Your task to perform on an android device: Do I have any events today? Image 0: 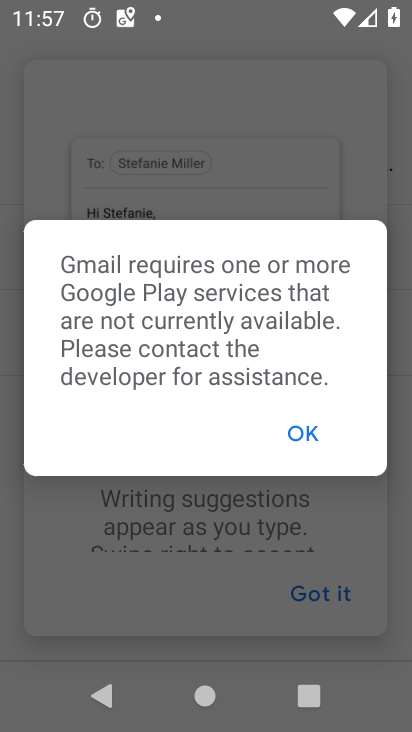
Step 0: press home button
Your task to perform on an android device: Do I have any events today? Image 1: 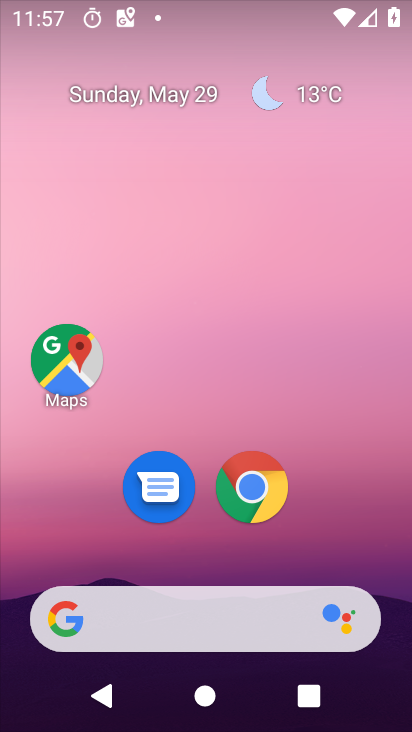
Step 1: drag from (383, 616) to (363, 81)
Your task to perform on an android device: Do I have any events today? Image 2: 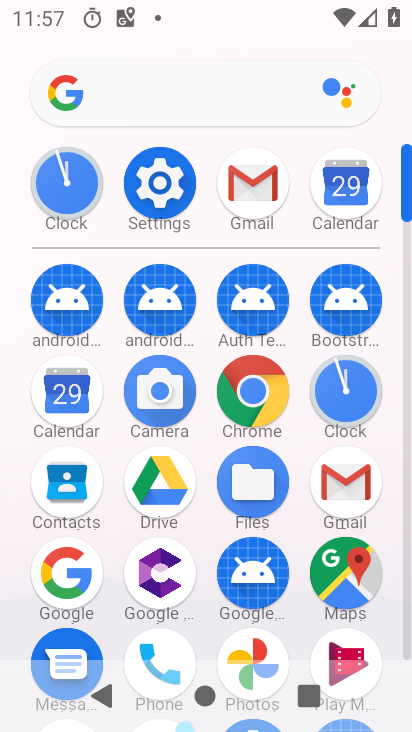
Step 2: click (52, 379)
Your task to perform on an android device: Do I have any events today? Image 3: 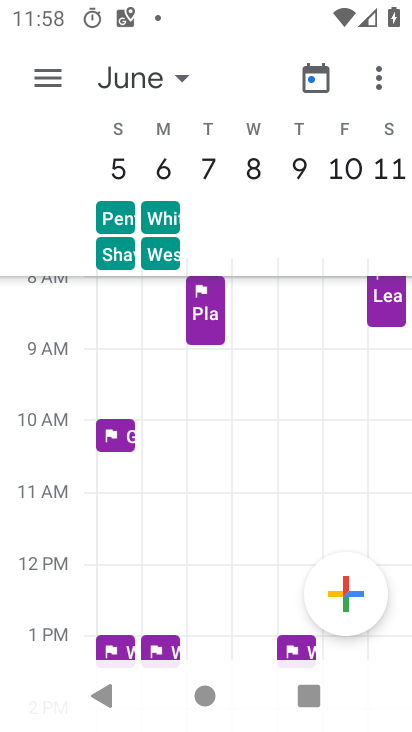
Step 3: click (171, 75)
Your task to perform on an android device: Do I have any events today? Image 4: 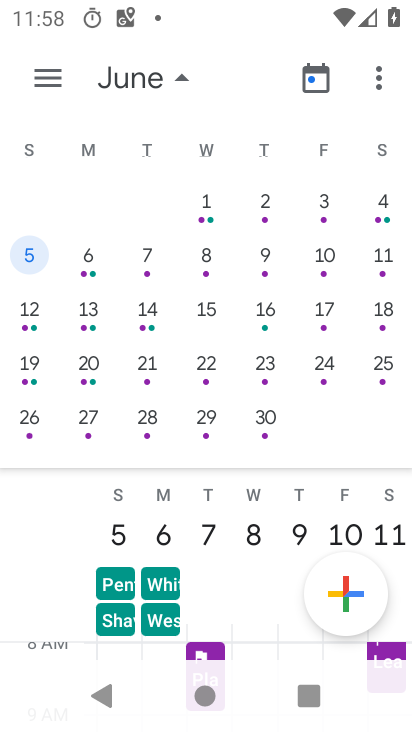
Step 4: drag from (124, 181) to (365, 211)
Your task to perform on an android device: Do I have any events today? Image 5: 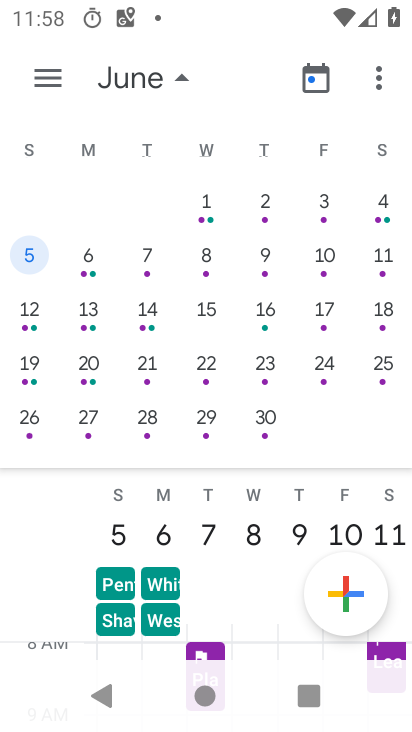
Step 5: drag from (112, 189) to (374, 200)
Your task to perform on an android device: Do I have any events today? Image 6: 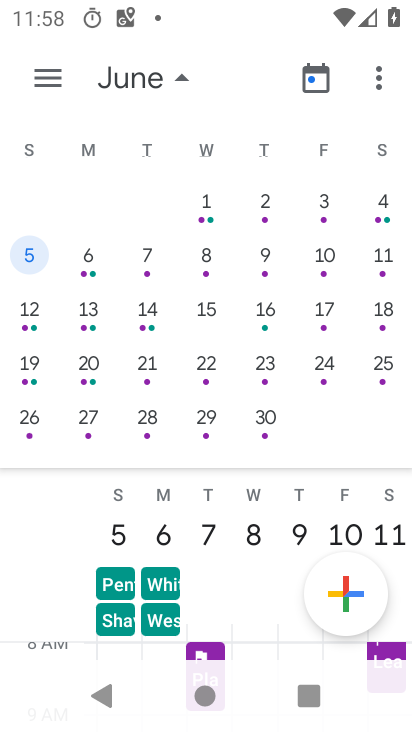
Step 6: drag from (73, 187) to (408, 201)
Your task to perform on an android device: Do I have any events today? Image 7: 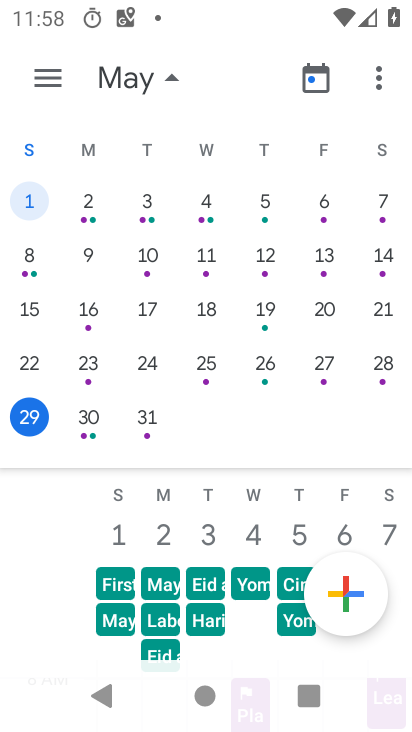
Step 7: click (21, 416)
Your task to perform on an android device: Do I have any events today? Image 8: 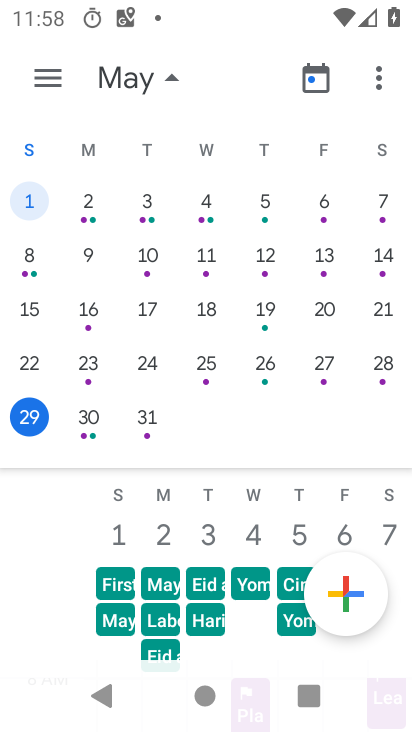
Step 8: click (51, 71)
Your task to perform on an android device: Do I have any events today? Image 9: 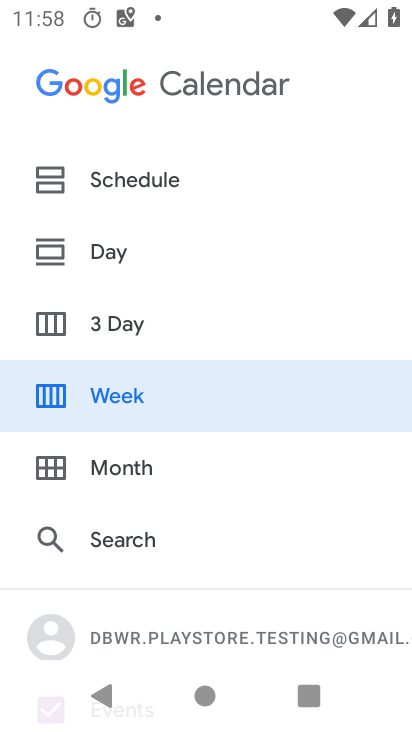
Step 9: click (93, 238)
Your task to perform on an android device: Do I have any events today? Image 10: 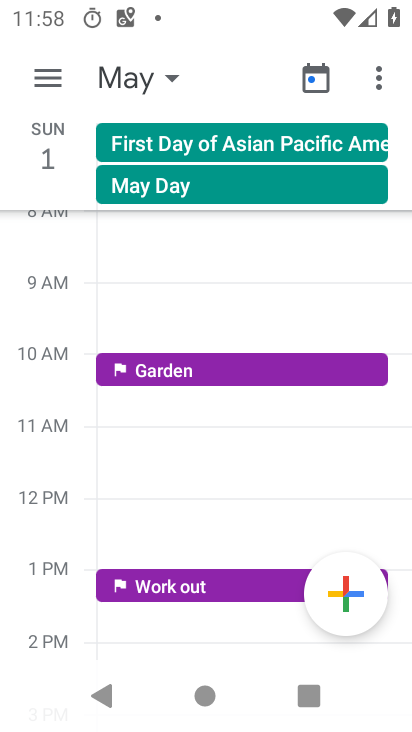
Step 10: click (42, 79)
Your task to perform on an android device: Do I have any events today? Image 11: 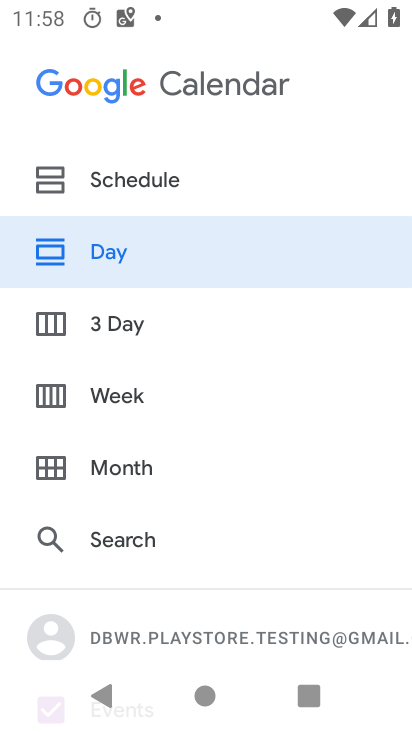
Step 11: click (80, 181)
Your task to perform on an android device: Do I have any events today? Image 12: 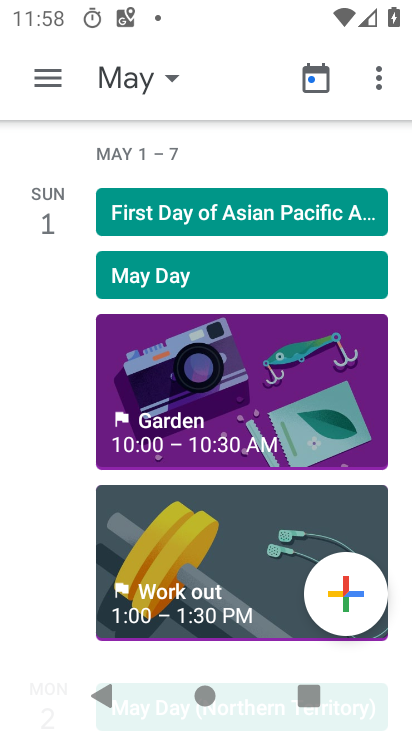
Step 12: click (155, 77)
Your task to perform on an android device: Do I have any events today? Image 13: 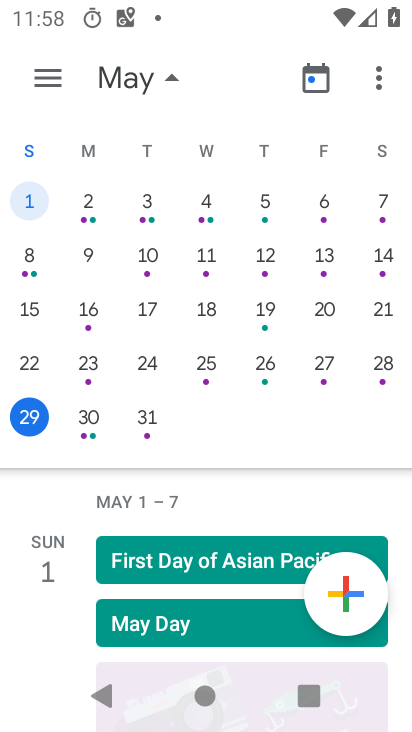
Step 13: click (35, 409)
Your task to perform on an android device: Do I have any events today? Image 14: 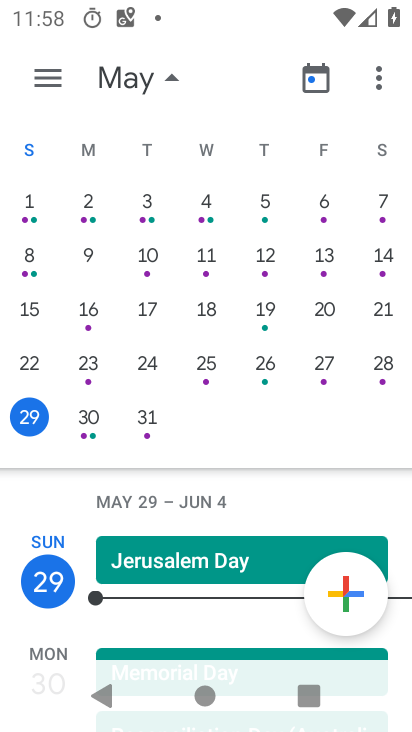
Step 14: click (41, 412)
Your task to perform on an android device: Do I have any events today? Image 15: 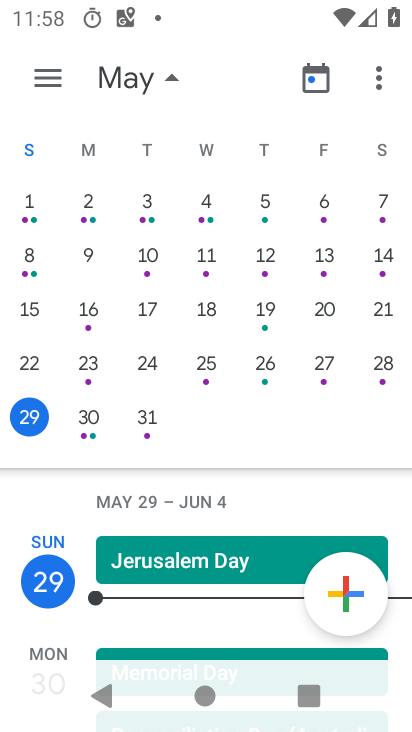
Step 15: click (59, 75)
Your task to perform on an android device: Do I have any events today? Image 16: 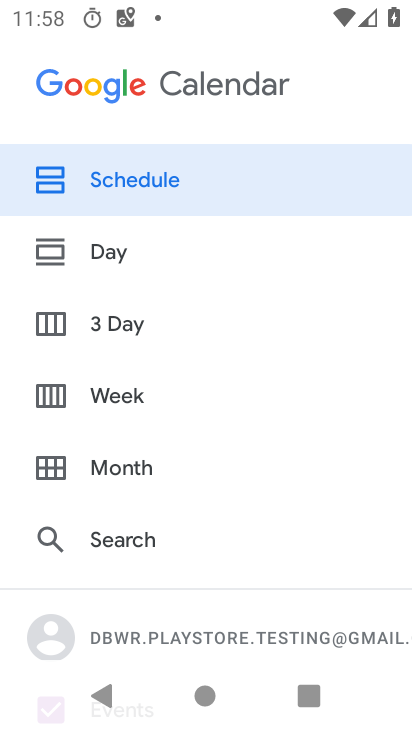
Step 16: click (91, 234)
Your task to perform on an android device: Do I have any events today? Image 17: 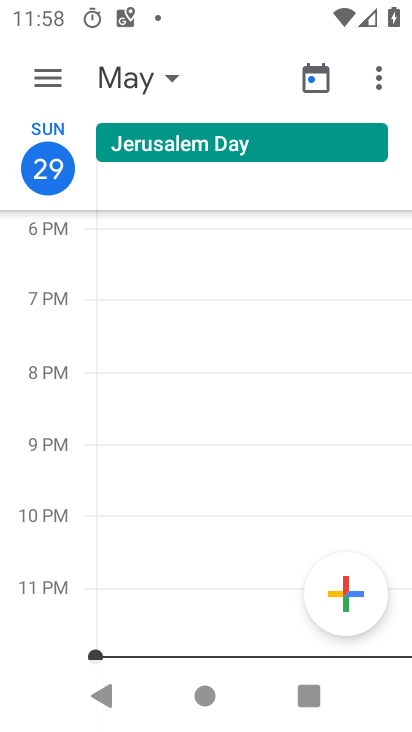
Step 17: task complete